Your task to perform on an android device: Open the web browser Image 0: 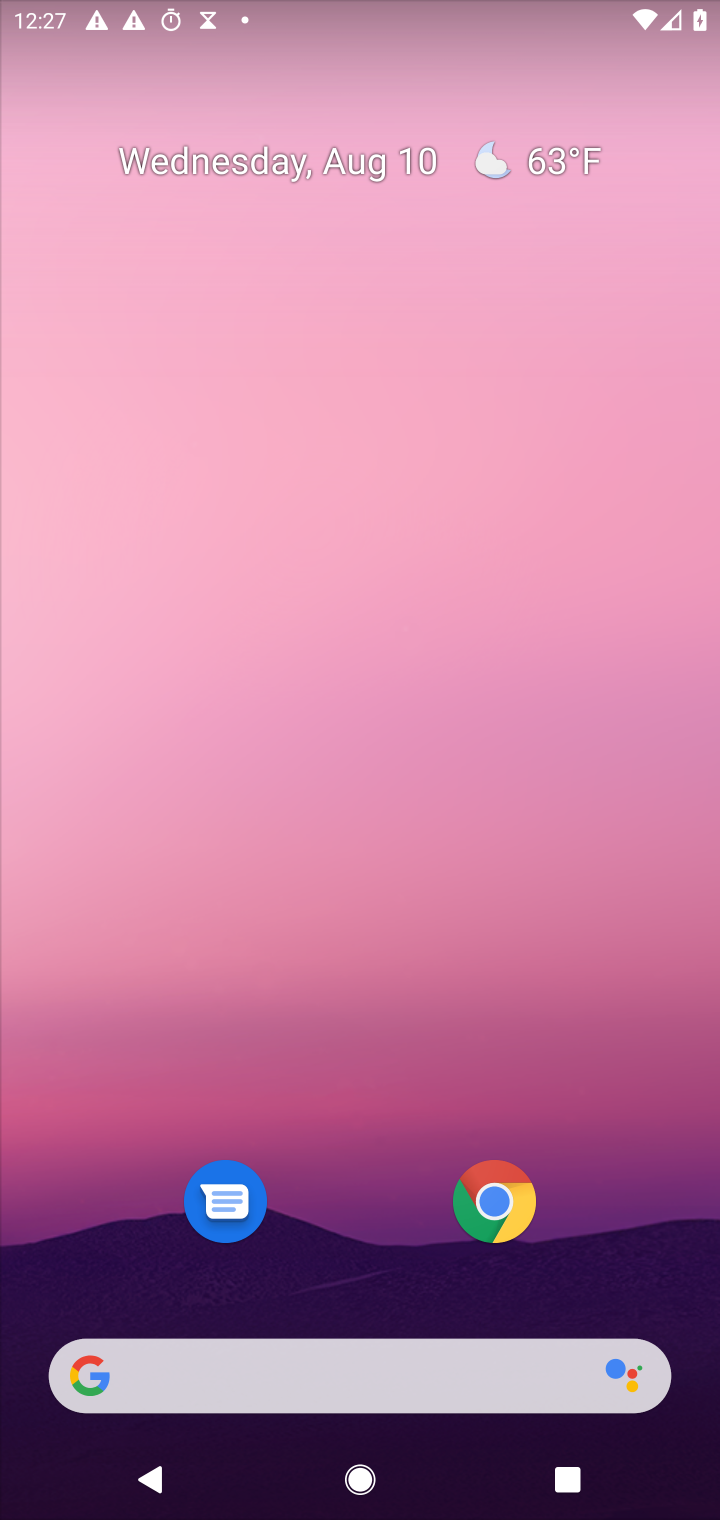
Step 0: press home button
Your task to perform on an android device: Open the web browser Image 1: 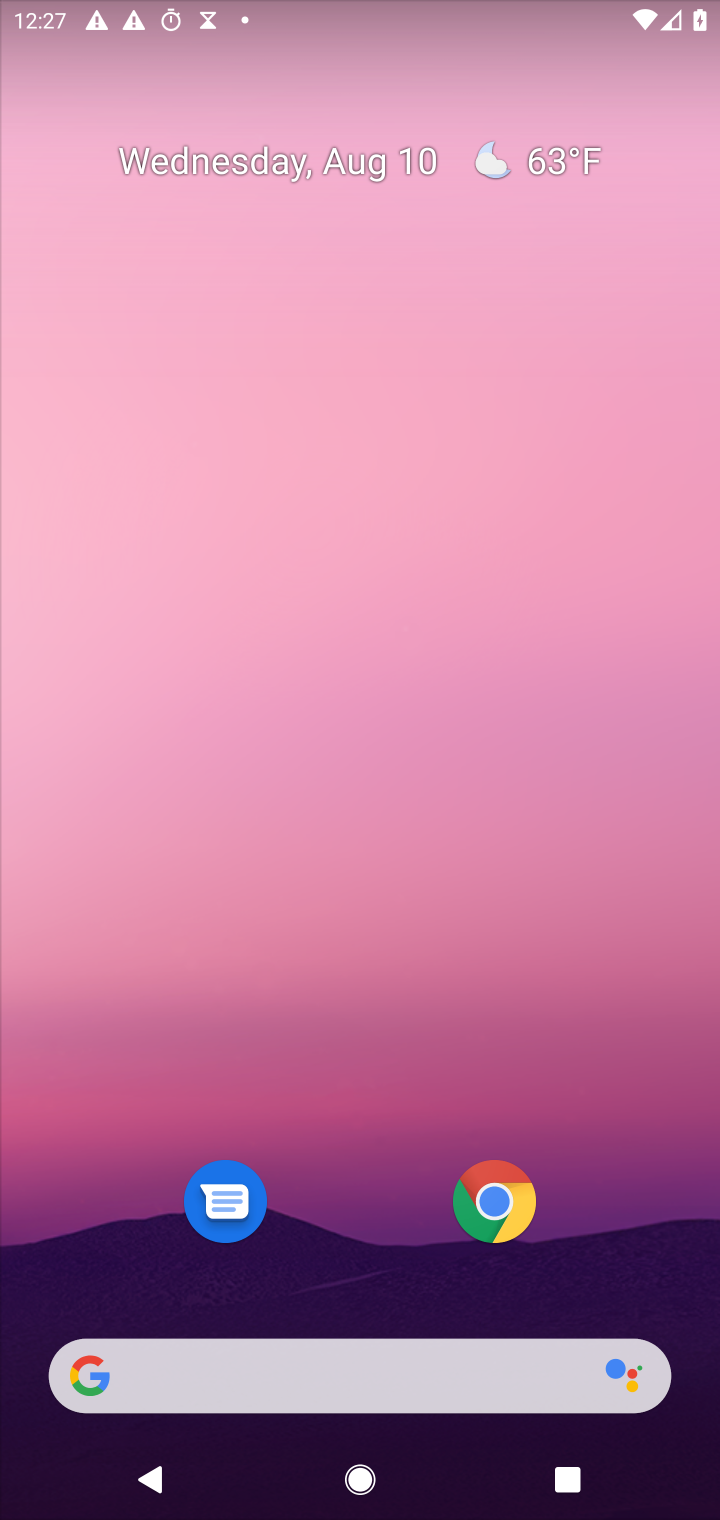
Step 1: drag from (328, 1299) to (316, 345)
Your task to perform on an android device: Open the web browser Image 2: 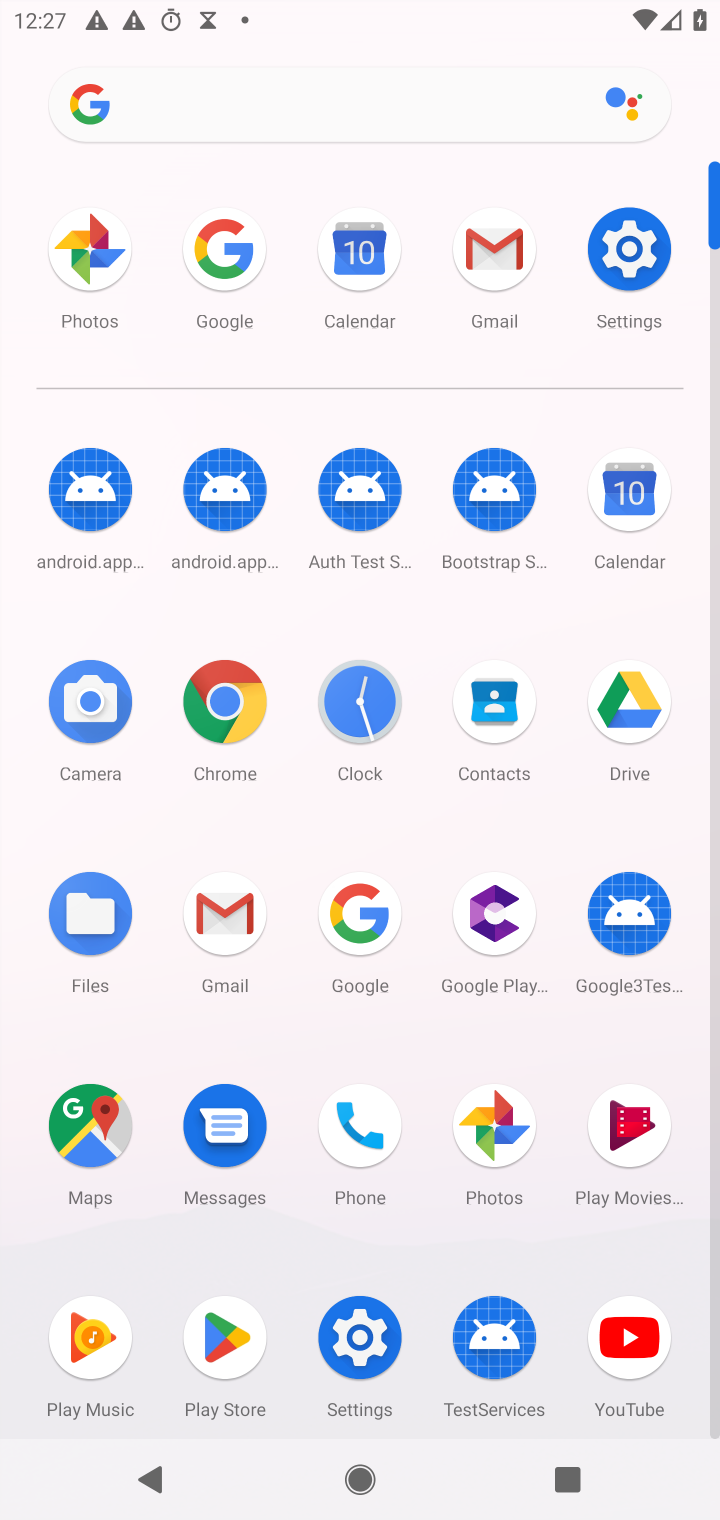
Step 2: click (213, 251)
Your task to perform on an android device: Open the web browser Image 3: 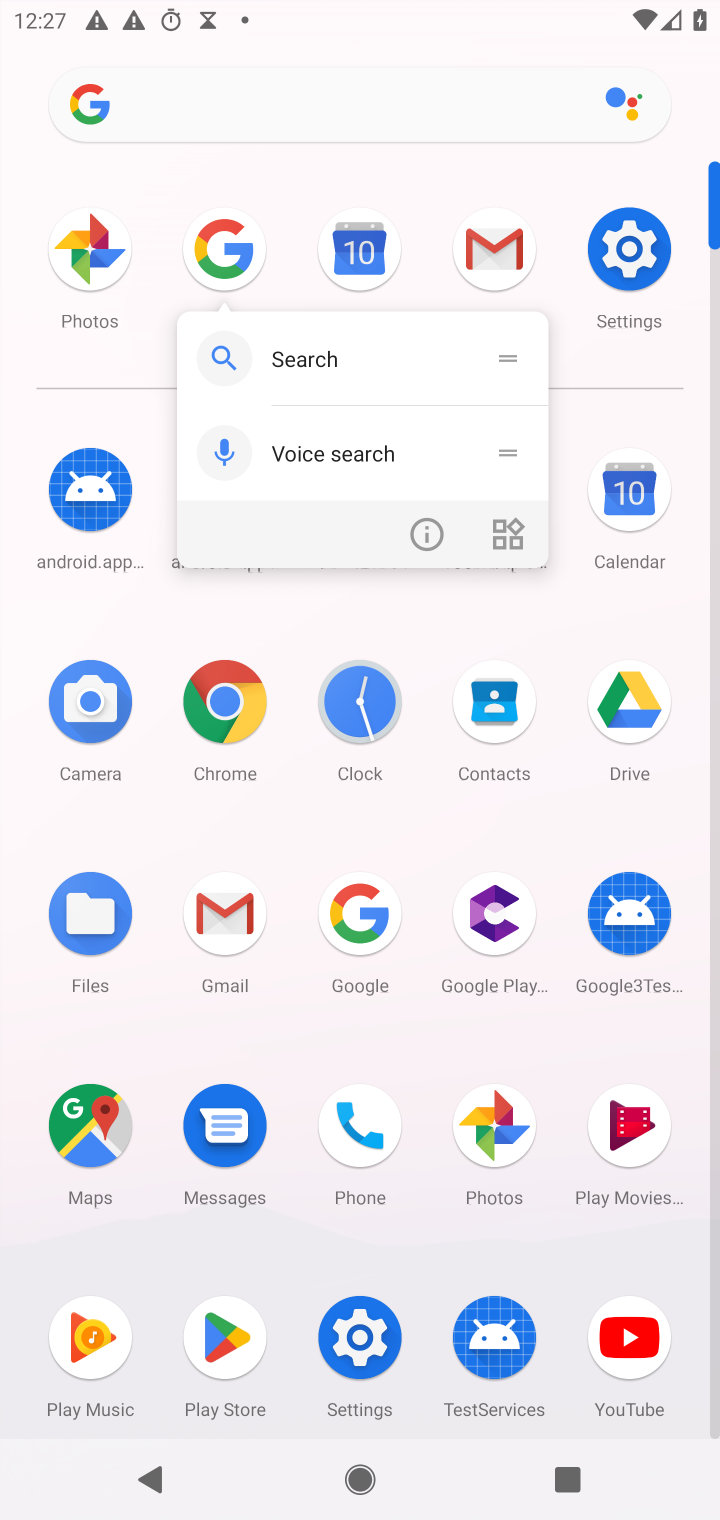
Step 3: click (218, 246)
Your task to perform on an android device: Open the web browser Image 4: 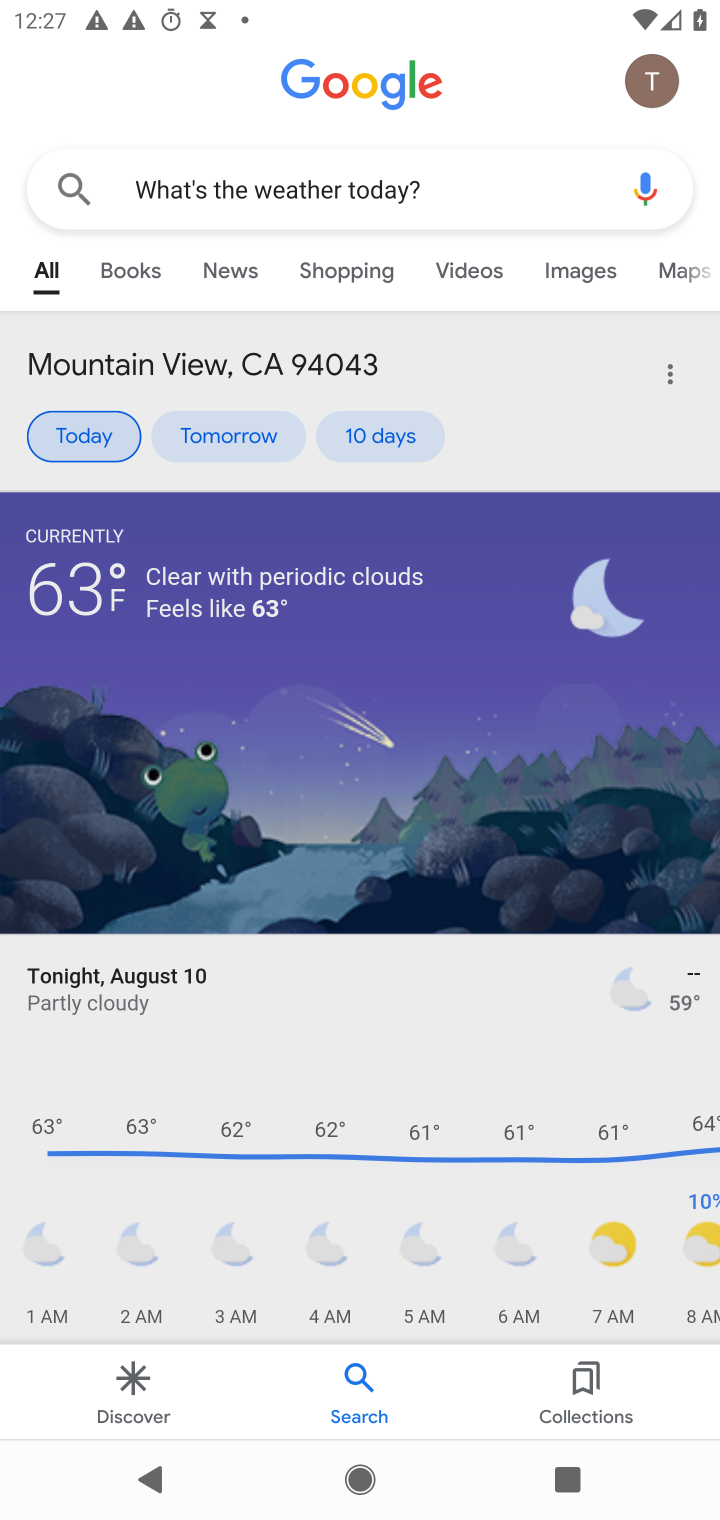
Step 4: click (414, 81)
Your task to perform on an android device: Open the web browser Image 5: 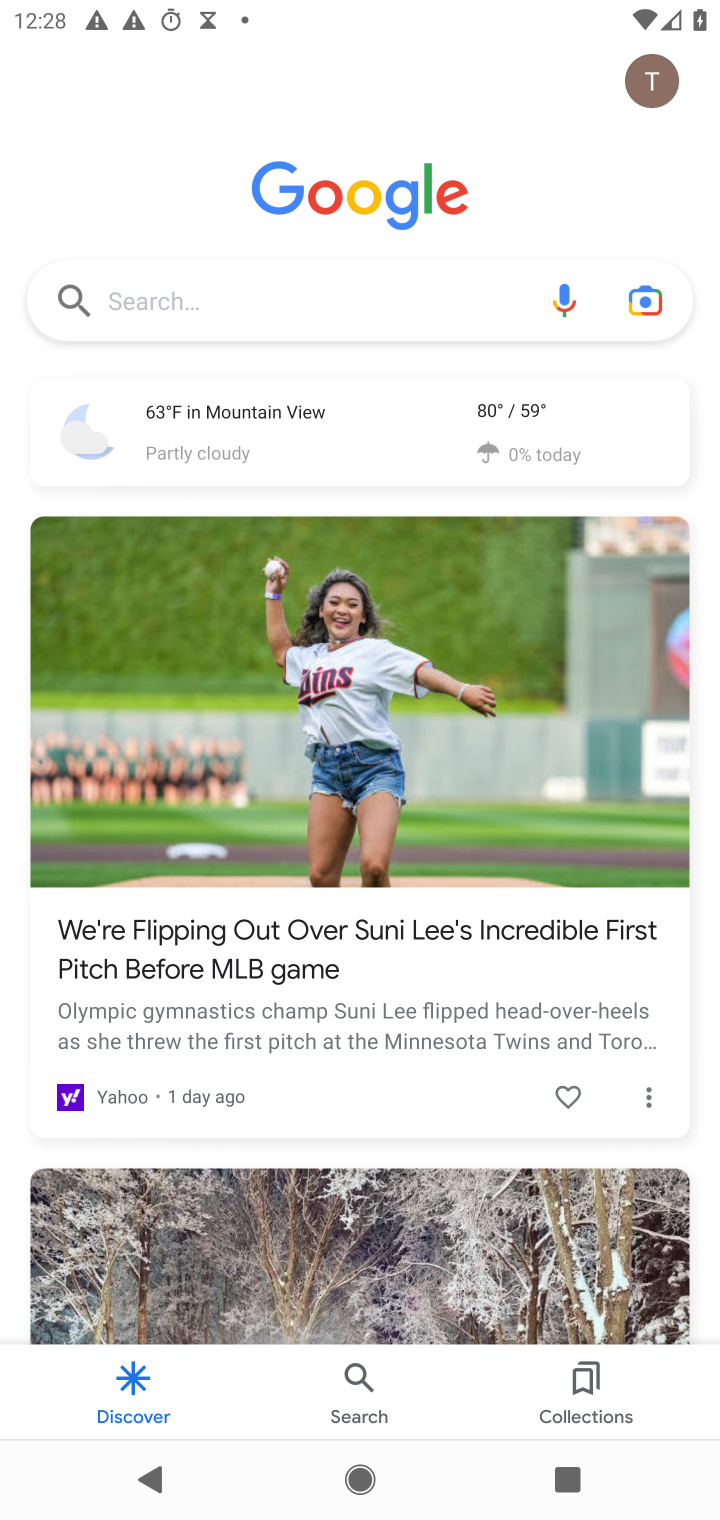
Step 5: task complete